Your task to perform on an android device: Search for seafood restaurants on Google Maps Image 0: 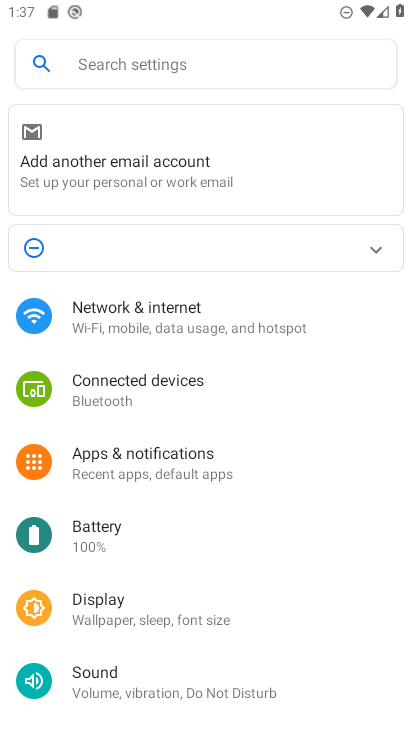
Step 0: press home button
Your task to perform on an android device: Search for seafood restaurants on Google Maps Image 1: 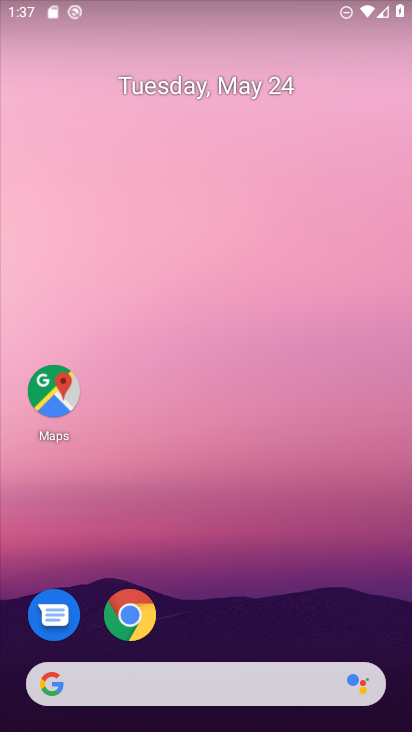
Step 1: click (57, 392)
Your task to perform on an android device: Search for seafood restaurants on Google Maps Image 2: 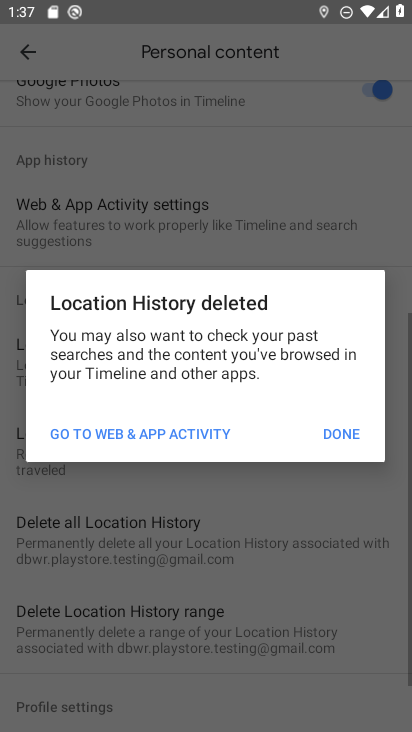
Step 2: click (321, 422)
Your task to perform on an android device: Search for seafood restaurants on Google Maps Image 3: 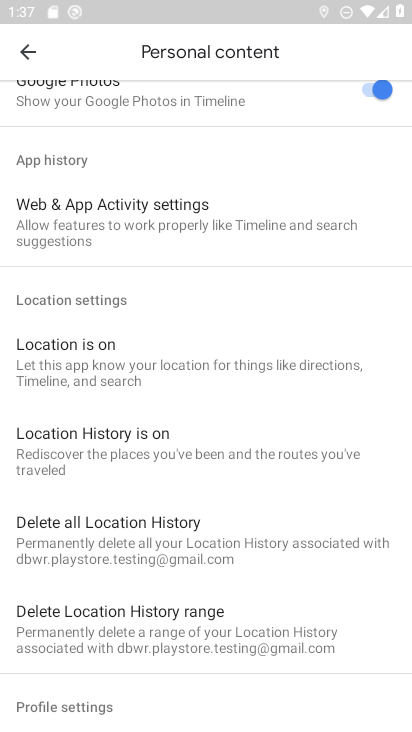
Step 3: click (20, 46)
Your task to perform on an android device: Search for seafood restaurants on Google Maps Image 4: 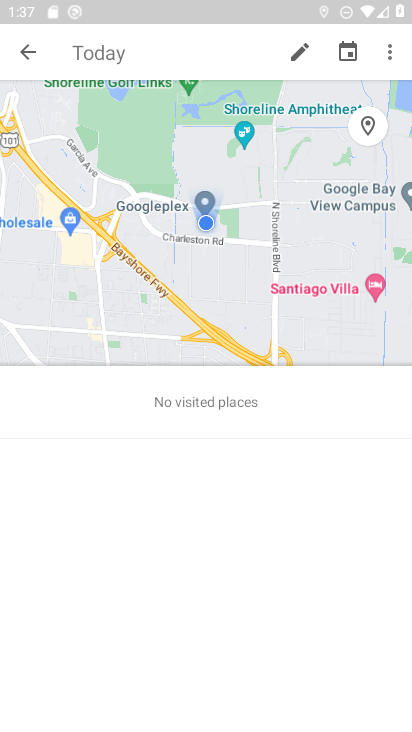
Step 4: click (31, 48)
Your task to perform on an android device: Search for seafood restaurants on Google Maps Image 5: 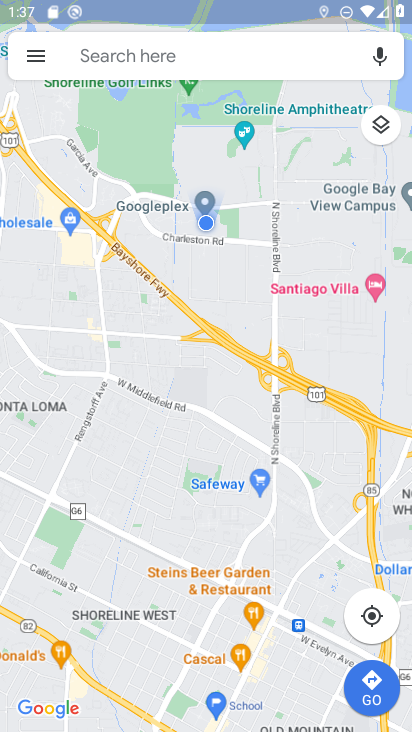
Step 5: click (228, 69)
Your task to perform on an android device: Search for seafood restaurants on Google Maps Image 6: 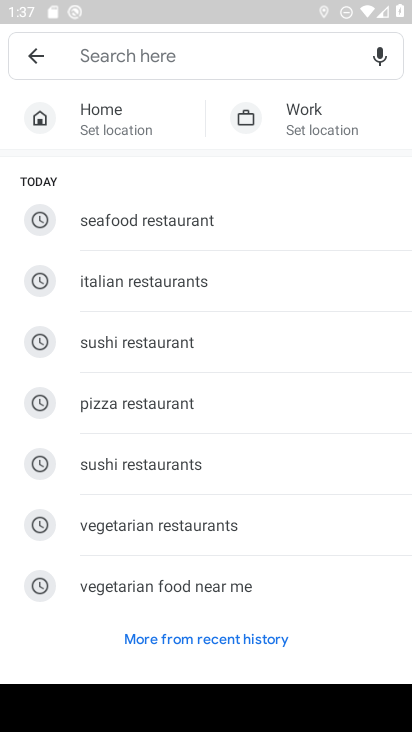
Step 6: click (138, 203)
Your task to perform on an android device: Search for seafood restaurants on Google Maps Image 7: 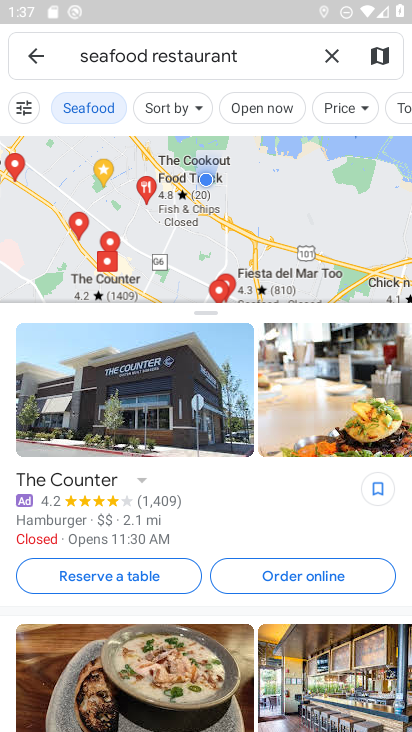
Step 7: task complete